Your task to perform on an android device: Go to location settings Image 0: 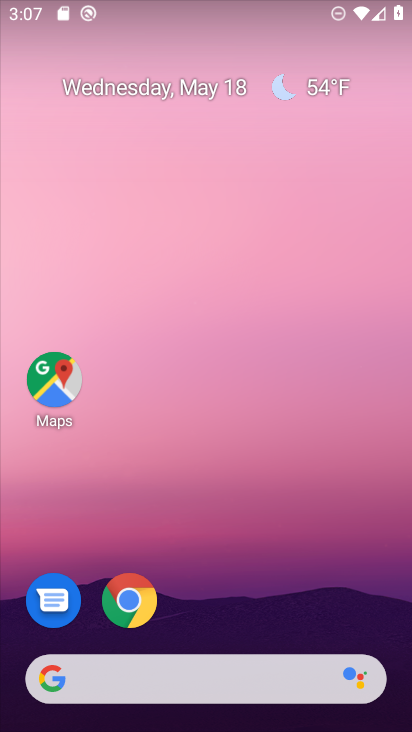
Step 0: drag from (200, 624) to (239, 319)
Your task to perform on an android device: Go to location settings Image 1: 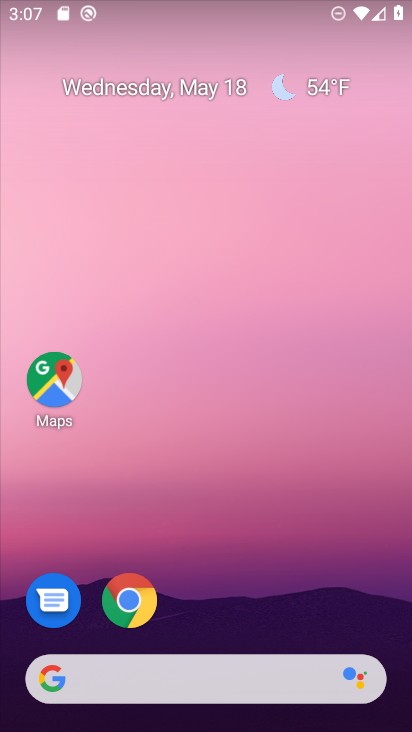
Step 1: drag from (215, 629) to (279, 157)
Your task to perform on an android device: Go to location settings Image 2: 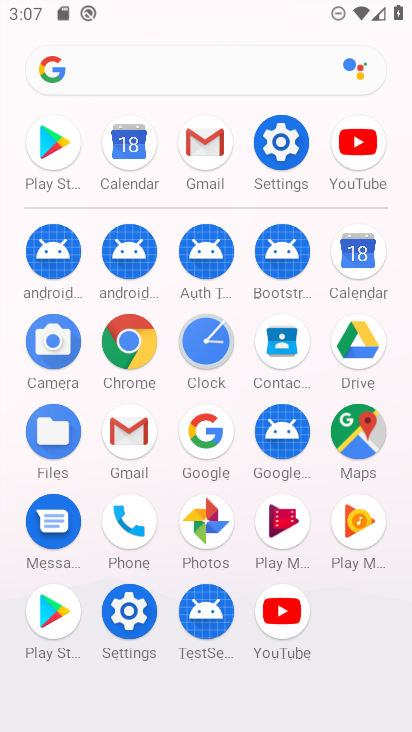
Step 2: click (280, 152)
Your task to perform on an android device: Go to location settings Image 3: 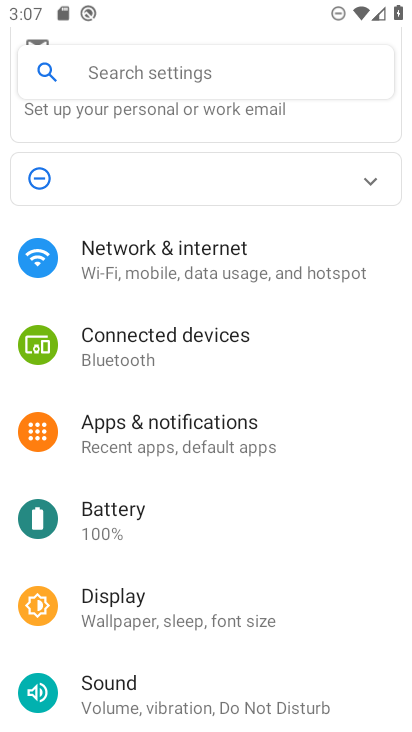
Step 3: drag from (173, 561) to (248, 163)
Your task to perform on an android device: Go to location settings Image 4: 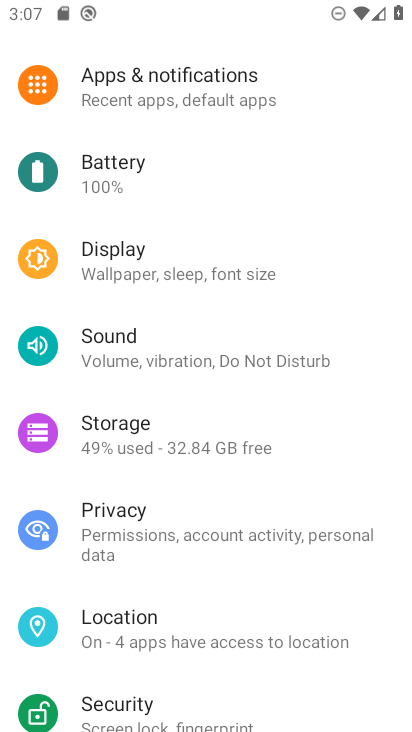
Step 4: click (138, 621)
Your task to perform on an android device: Go to location settings Image 5: 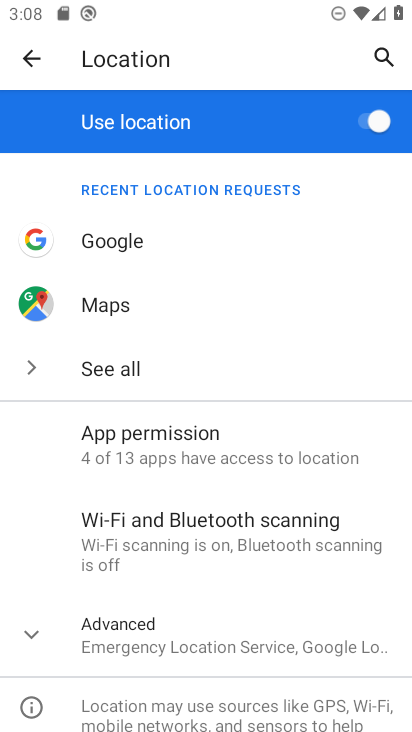
Step 5: task complete